Your task to perform on an android device: Is it going to rain this weekend? Image 0: 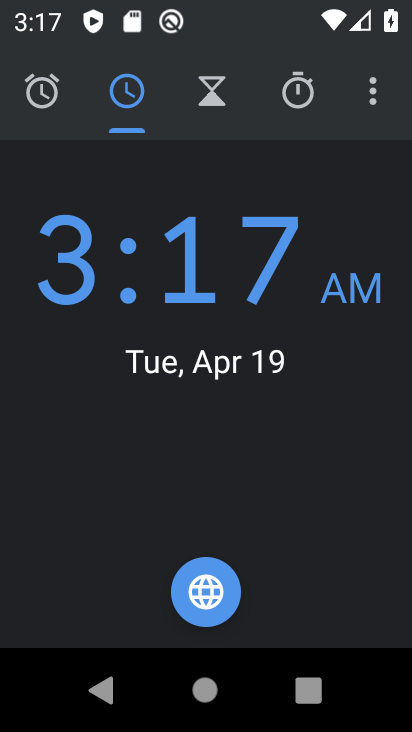
Step 0: drag from (302, 550) to (393, 36)
Your task to perform on an android device: Is it going to rain this weekend? Image 1: 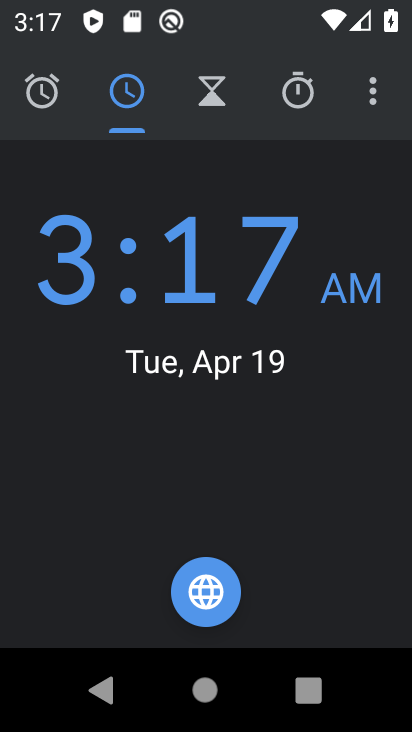
Step 1: press home button
Your task to perform on an android device: Is it going to rain this weekend? Image 2: 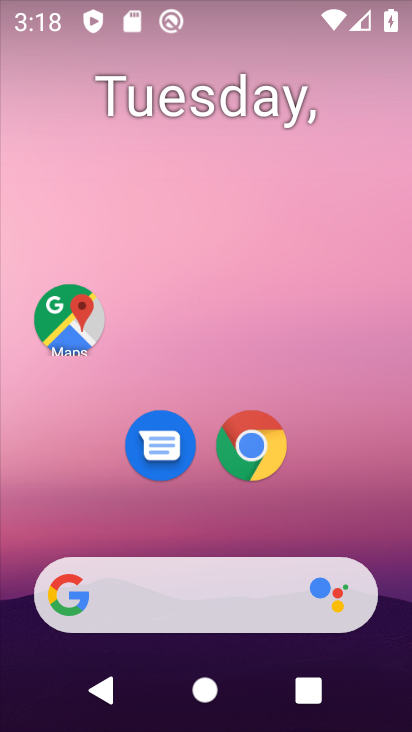
Step 2: click (195, 584)
Your task to perform on an android device: Is it going to rain this weekend? Image 3: 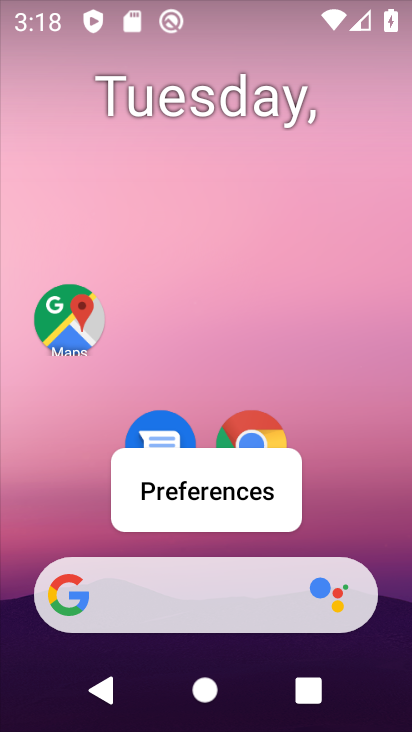
Step 3: click (264, 433)
Your task to perform on an android device: Is it going to rain this weekend? Image 4: 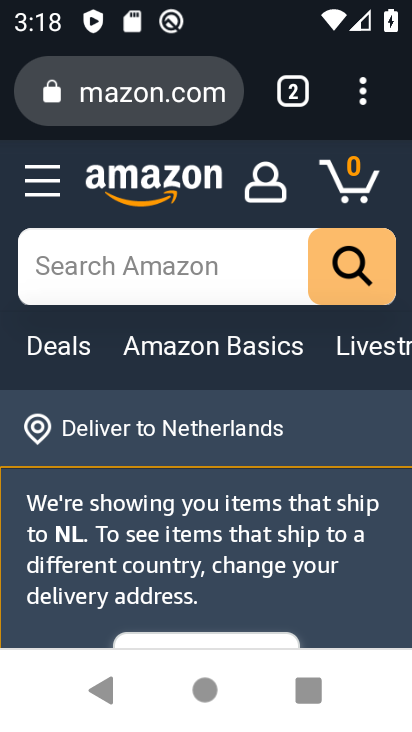
Step 4: click (131, 256)
Your task to perform on an android device: Is it going to rain this weekend? Image 5: 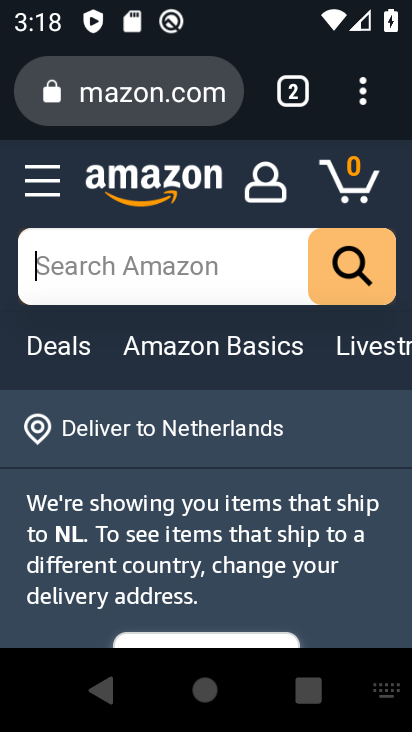
Step 5: type "is it going to rain this weekend"
Your task to perform on an android device: Is it going to rain this weekend? Image 6: 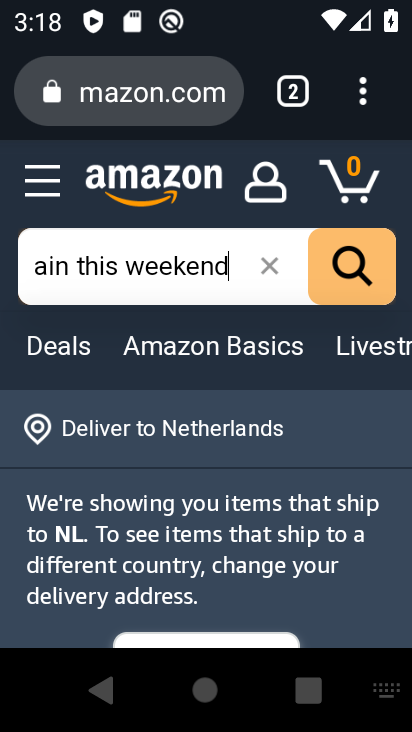
Step 6: click (197, 111)
Your task to perform on an android device: Is it going to rain this weekend? Image 7: 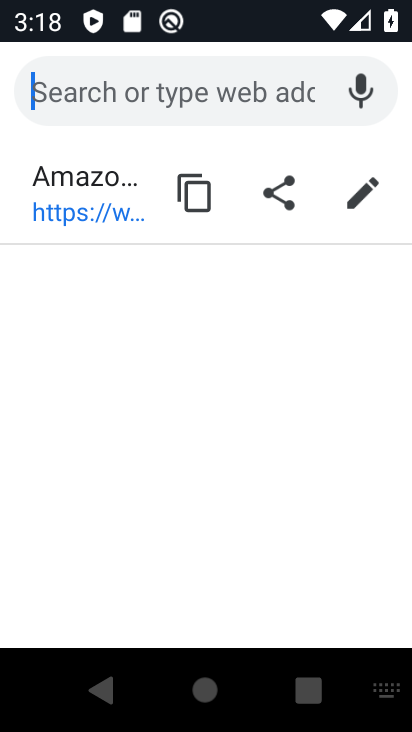
Step 7: type "is it going to rain this weekend"
Your task to perform on an android device: Is it going to rain this weekend? Image 8: 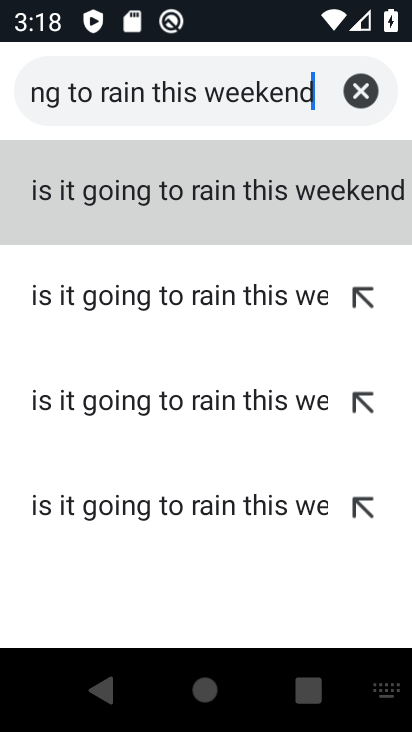
Step 8: click (229, 202)
Your task to perform on an android device: Is it going to rain this weekend? Image 9: 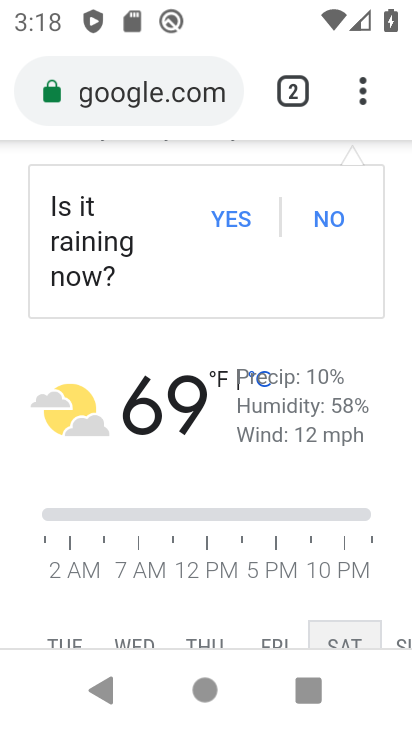
Step 9: task complete